Your task to perform on an android device: change notifications settings Image 0: 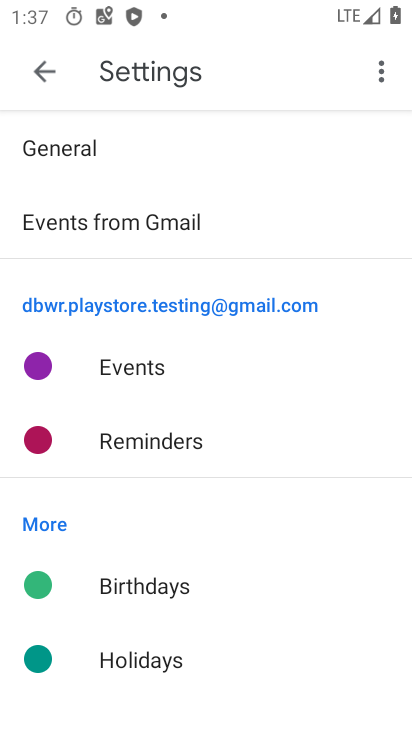
Step 0: press home button
Your task to perform on an android device: change notifications settings Image 1: 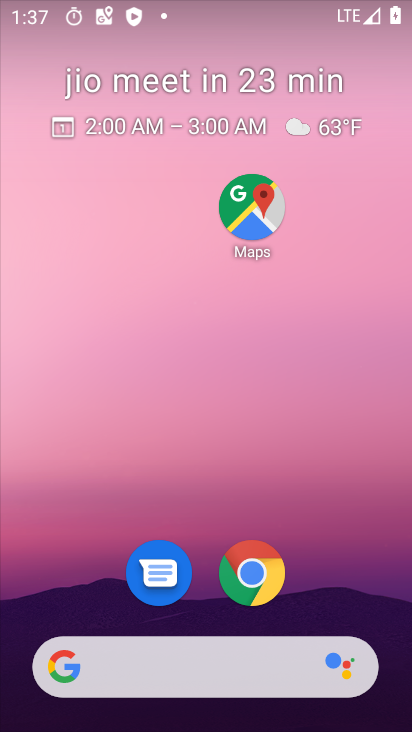
Step 1: click (210, 10)
Your task to perform on an android device: change notifications settings Image 2: 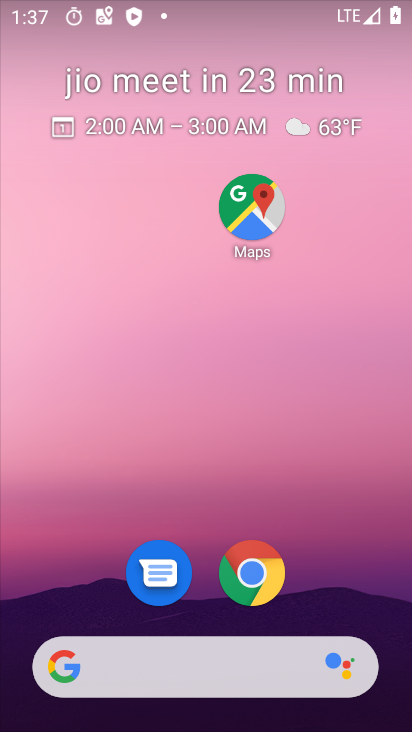
Step 2: drag from (25, 530) to (157, 153)
Your task to perform on an android device: change notifications settings Image 3: 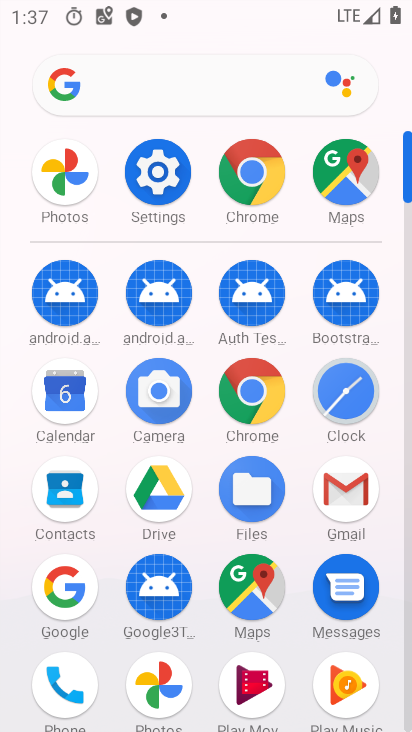
Step 3: click (143, 170)
Your task to perform on an android device: change notifications settings Image 4: 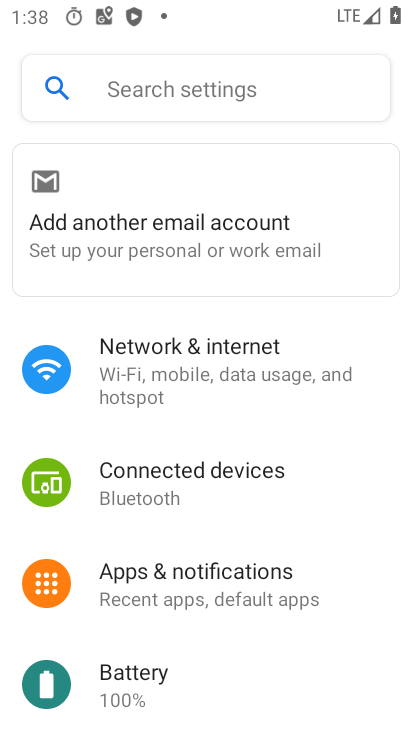
Step 4: click (123, 590)
Your task to perform on an android device: change notifications settings Image 5: 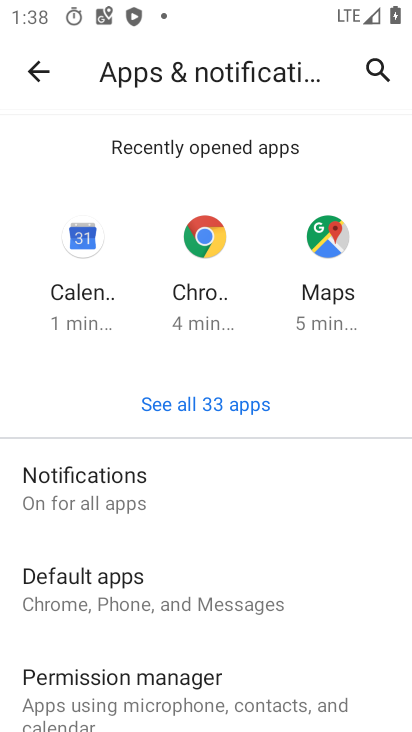
Step 5: click (234, 484)
Your task to perform on an android device: change notifications settings Image 6: 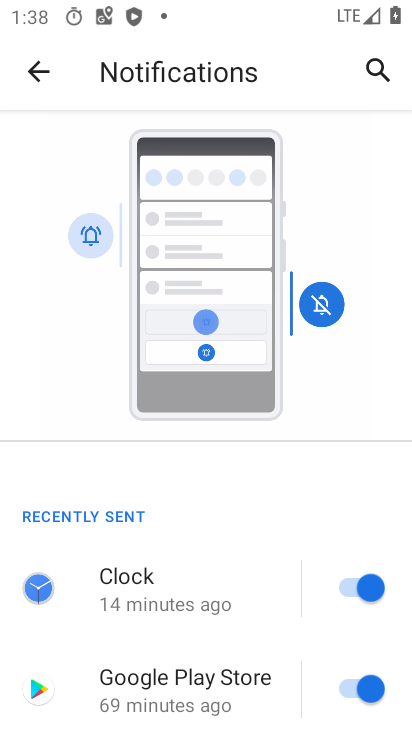
Step 6: task complete